Your task to perform on an android device: turn off priority inbox in the gmail app Image 0: 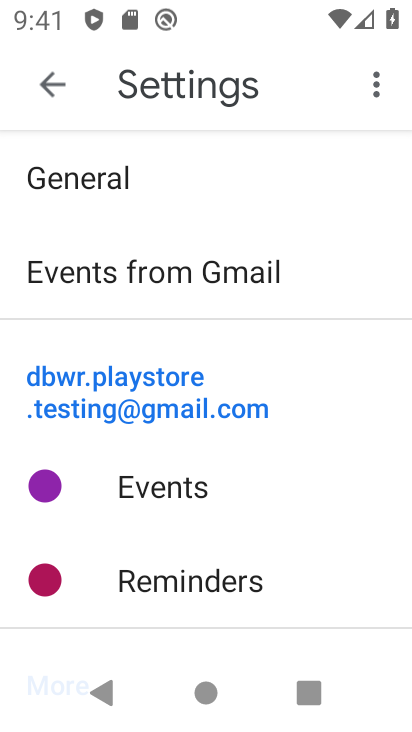
Step 0: press home button
Your task to perform on an android device: turn off priority inbox in the gmail app Image 1: 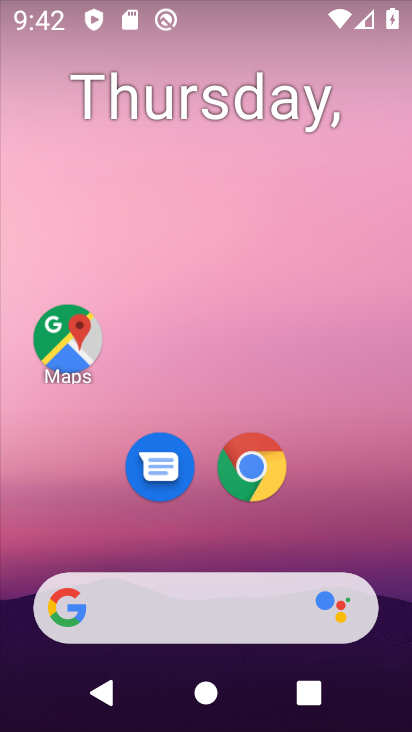
Step 1: drag from (355, 492) to (409, 94)
Your task to perform on an android device: turn off priority inbox in the gmail app Image 2: 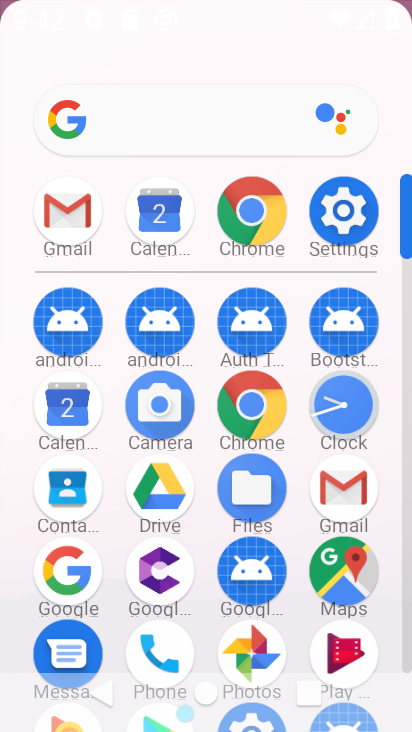
Step 2: click (58, 241)
Your task to perform on an android device: turn off priority inbox in the gmail app Image 3: 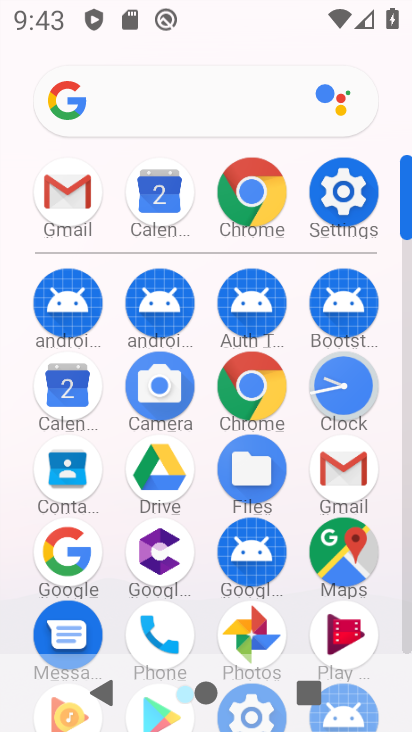
Step 3: click (344, 467)
Your task to perform on an android device: turn off priority inbox in the gmail app Image 4: 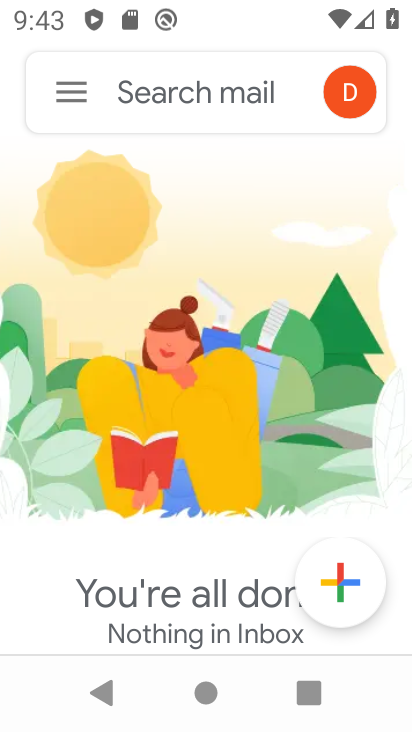
Step 4: click (67, 89)
Your task to perform on an android device: turn off priority inbox in the gmail app Image 5: 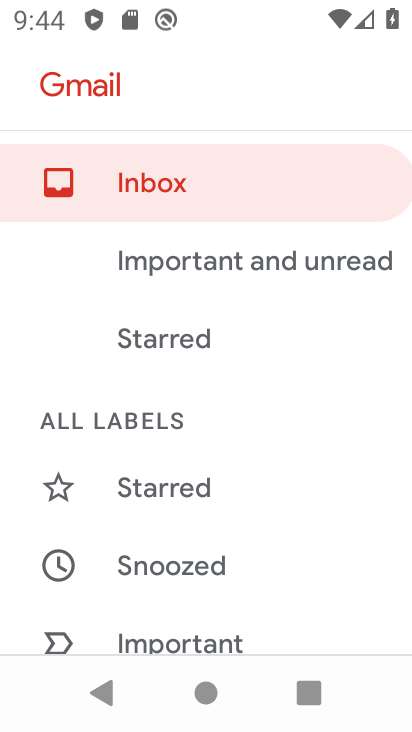
Step 5: drag from (146, 555) to (230, 2)
Your task to perform on an android device: turn off priority inbox in the gmail app Image 6: 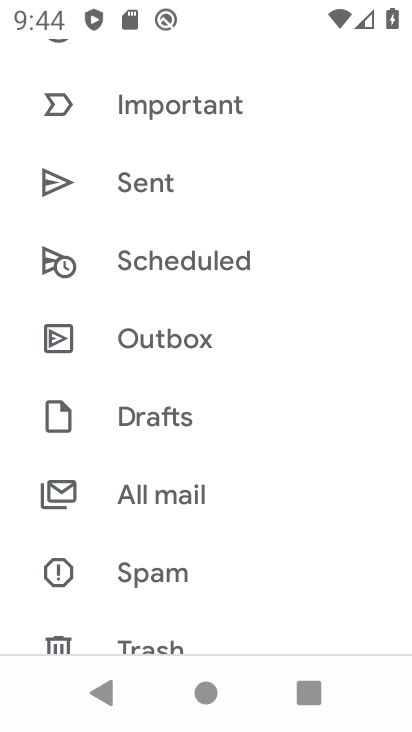
Step 6: drag from (284, 515) to (321, 9)
Your task to perform on an android device: turn off priority inbox in the gmail app Image 7: 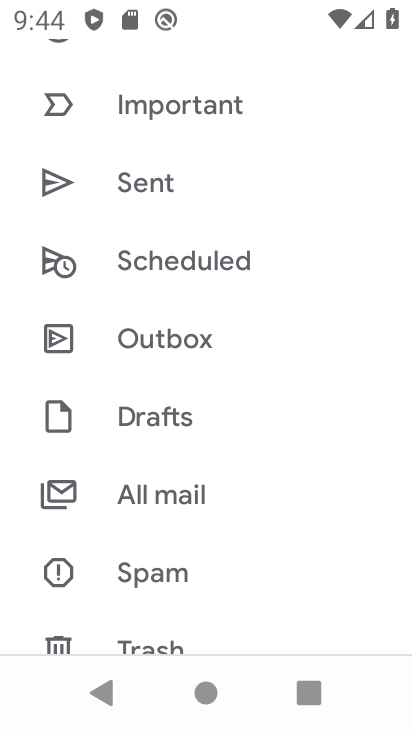
Step 7: drag from (205, 612) to (233, 60)
Your task to perform on an android device: turn off priority inbox in the gmail app Image 8: 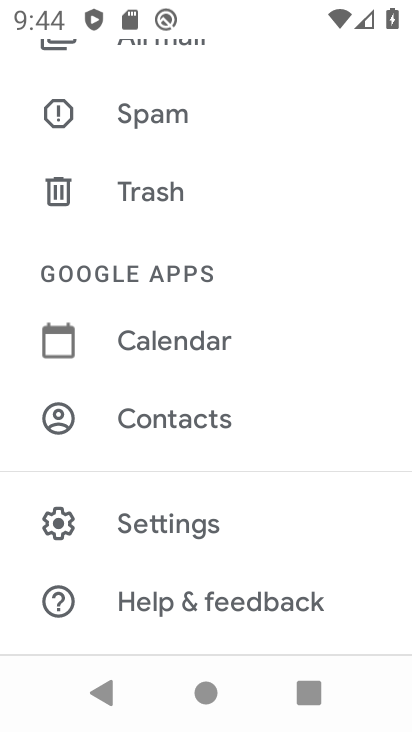
Step 8: drag from (205, 510) to (204, 453)
Your task to perform on an android device: turn off priority inbox in the gmail app Image 9: 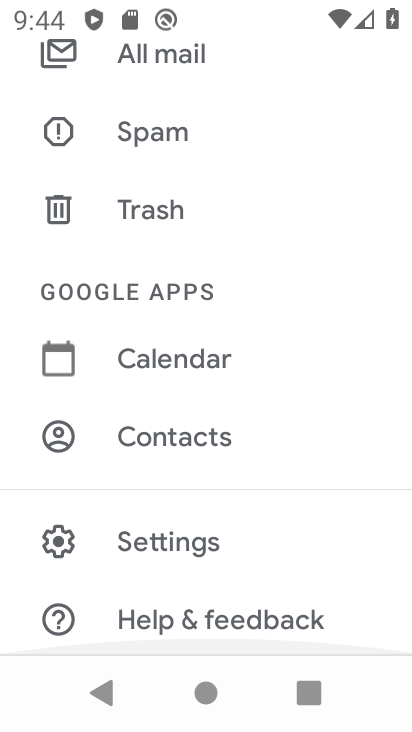
Step 9: click (183, 512)
Your task to perform on an android device: turn off priority inbox in the gmail app Image 10: 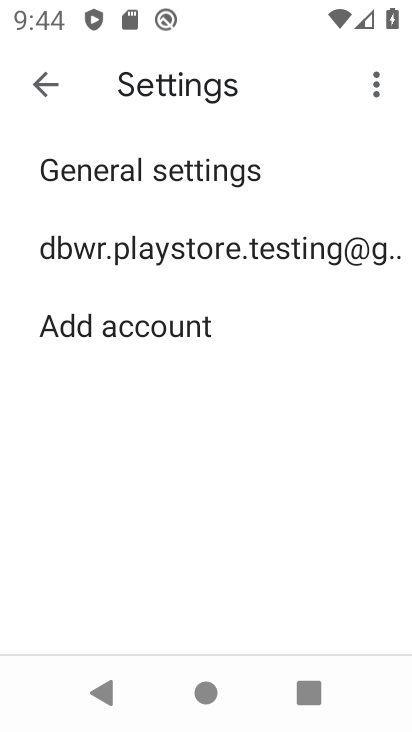
Step 10: click (138, 252)
Your task to perform on an android device: turn off priority inbox in the gmail app Image 11: 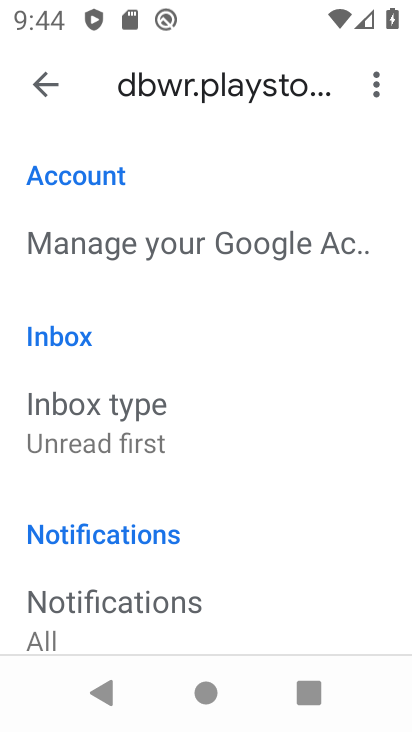
Step 11: click (148, 440)
Your task to perform on an android device: turn off priority inbox in the gmail app Image 12: 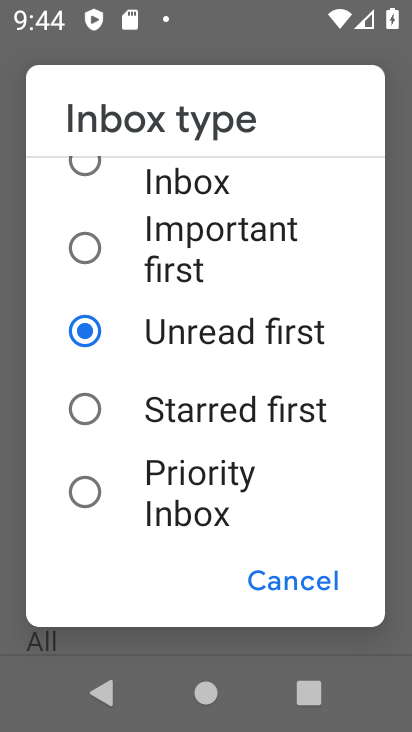
Step 12: task complete